Your task to perform on an android device: empty trash in the gmail app Image 0: 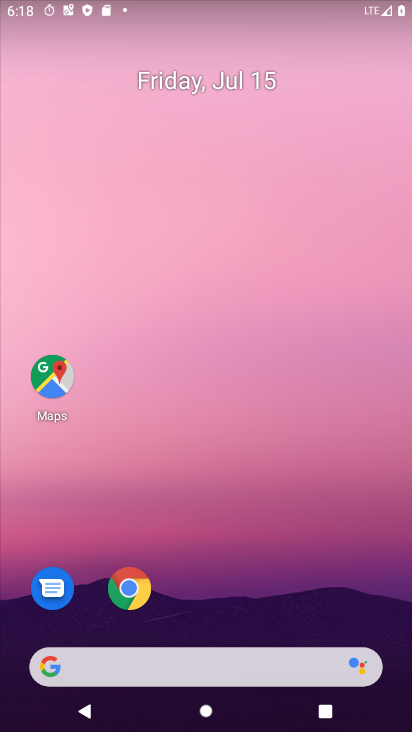
Step 0: drag from (308, 599) to (310, 186)
Your task to perform on an android device: empty trash in the gmail app Image 1: 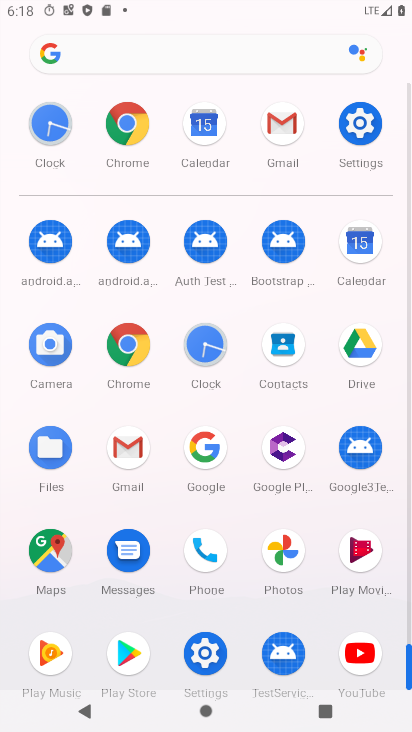
Step 1: click (136, 451)
Your task to perform on an android device: empty trash in the gmail app Image 2: 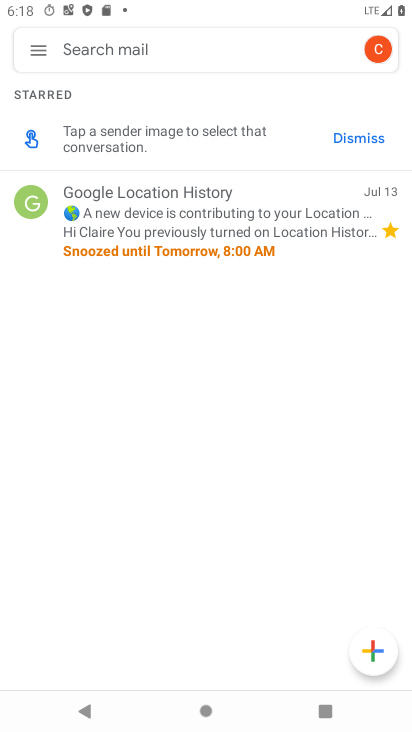
Step 2: click (39, 48)
Your task to perform on an android device: empty trash in the gmail app Image 3: 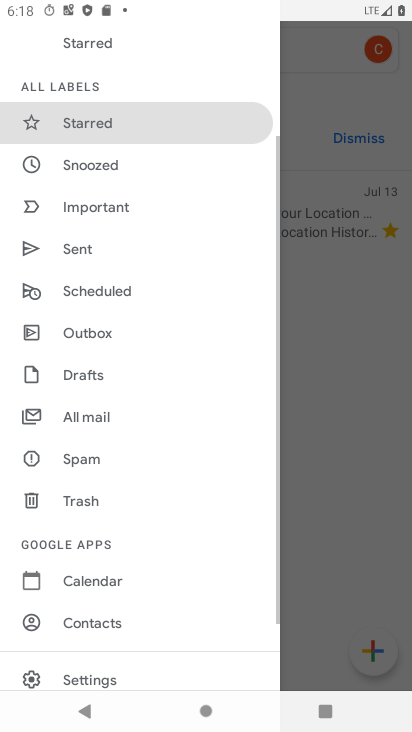
Step 3: click (139, 503)
Your task to perform on an android device: empty trash in the gmail app Image 4: 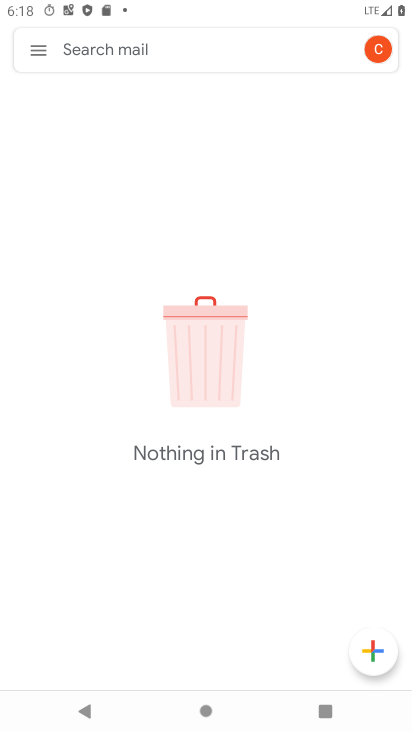
Step 4: task complete